Your task to perform on an android device: open app "Facebook Lite" (install if not already installed) Image 0: 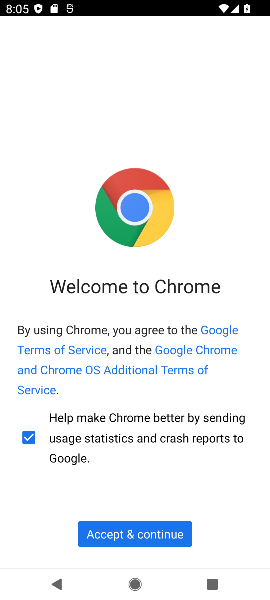
Step 0: press home button
Your task to perform on an android device: open app "Facebook Lite" (install if not already installed) Image 1: 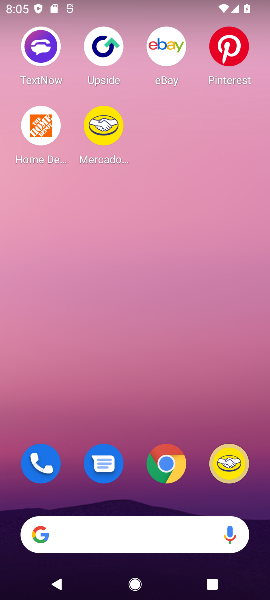
Step 1: drag from (140, 486) to (134, 152)
Your task to perform on an android device: open app "Facebook Lite" (install if not already installed) Image 2: 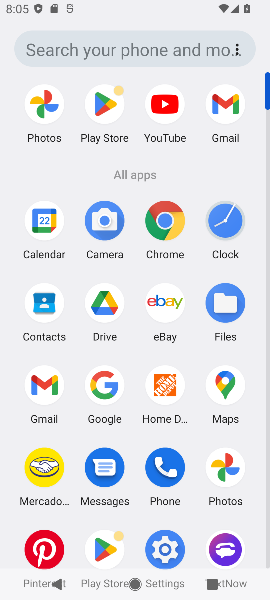
Step 2: click (102, 101)
Your task to perform on an android device: open app "Facebook Lite" (install if not already installed) Image 3: 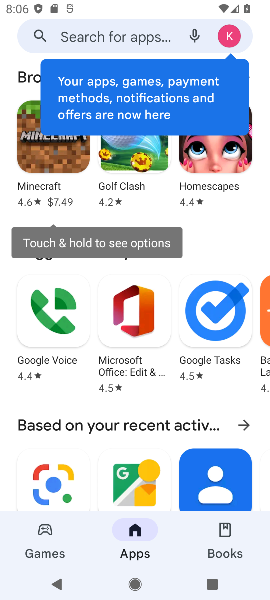
Step 3: click (106, 22)
Your task to perform on an android device: open app "Facebook Lite" (install if not already installed) Image 4: 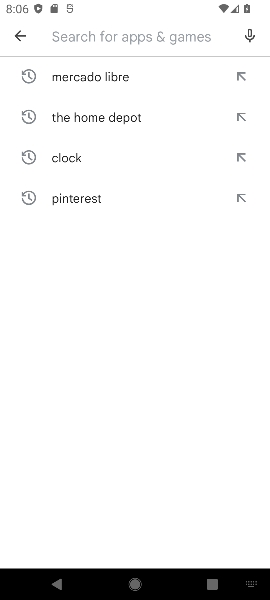
Step 4: type "Facebook Lite"
Your task to perform on an android device: open app "Facebook Lite" (install if not already installed) Image 5: 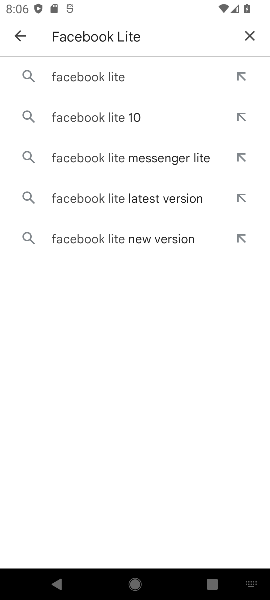
Step 5: click (89, 79)
Your task to perform on an android device: open app "Facebook Lite" (install if not already installed) Image 6: 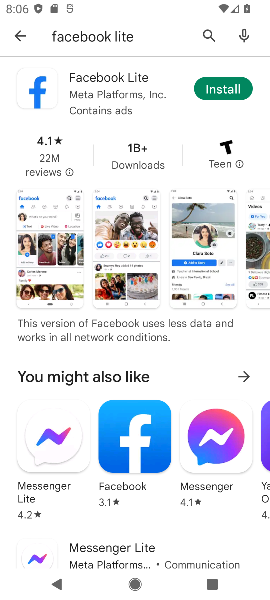
Step 6: click (217, 100)
Your task to perform on an android device: open app "Facebook Lite" (install if not already installed) Image 7: 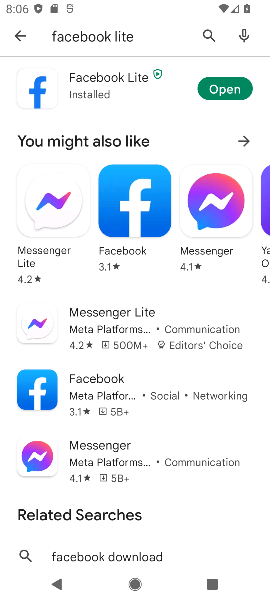
Step 7: click (217, 100)
Your task to perform on an android device: open app "Facebook Lite" (install if not already installed) Image 8: 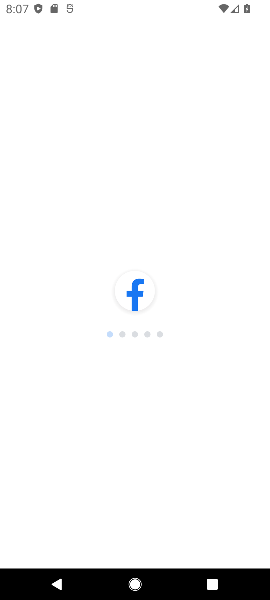
Step 8: task complete